Your task to perform on an android device: Go to notification settings Image 0: 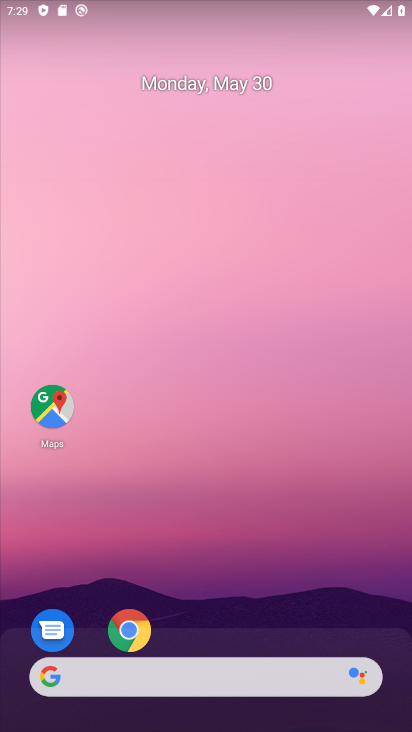
Step 0: drag from (202, 689) to (342, 188)
Your task to perform on an android device: Go to notification settings Image 1: 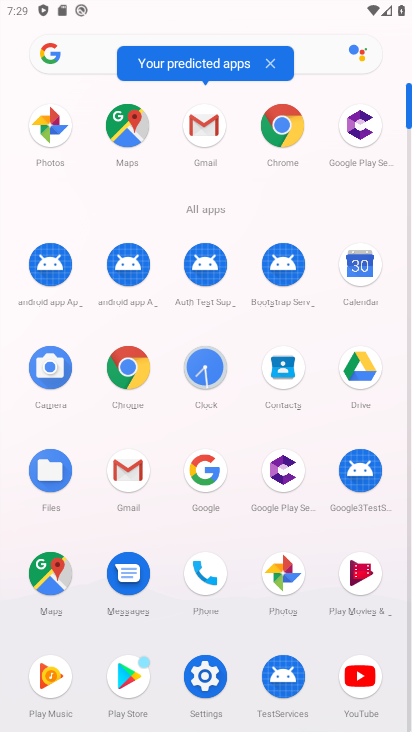
Step 1: click (206, 682)
Your task to perform on an android device: Go to notification settings Image 2: 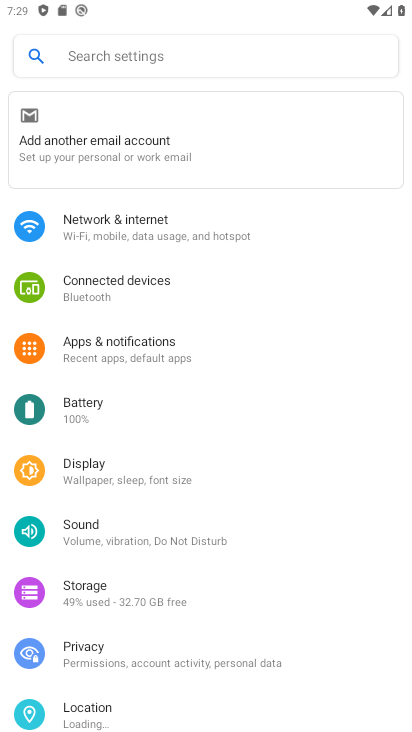
Step 2: click (156, 341)
Your task to perform on an android device: Go to notification settings Image 3: 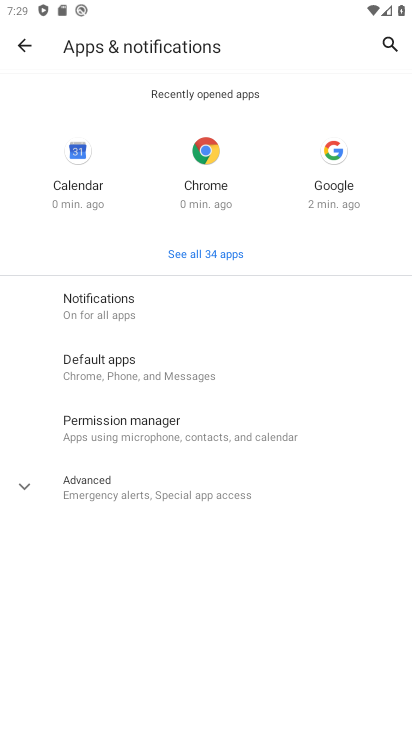
Step 3: click (100, 299)
Your task to perform on an android device: Go to notification settings Image 4: 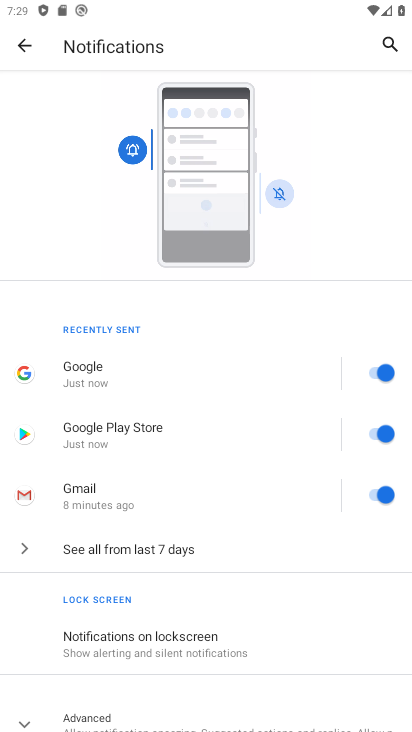
Step 4: task complete